Your task to perform on an android device: Open Google Chrome and click the shortcut for Amazon.com Image 0: 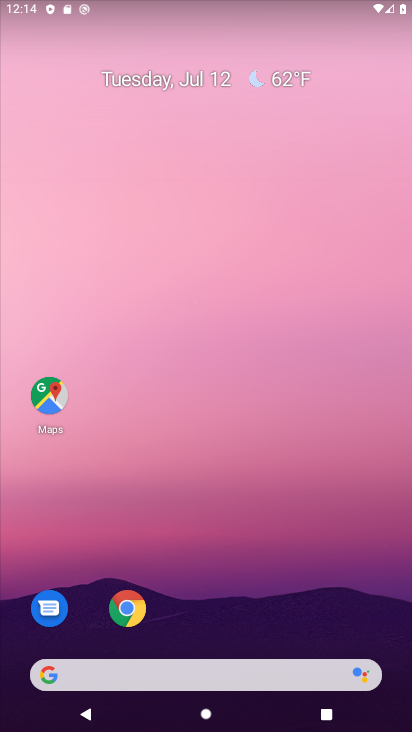
Step 0: drag from (225, 617) to (259, 208)
Your task to perform on an android device: Open Google Chrome and click the shortcut for Amazon.com Image 1: 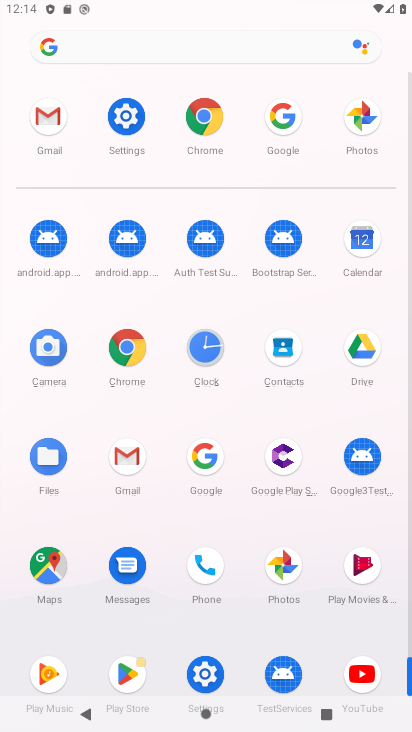
Step 1: click (220, 122)
Your task to perform on an android device: Open Google Chrome and click the shortcut for Amazon.com Image 2: 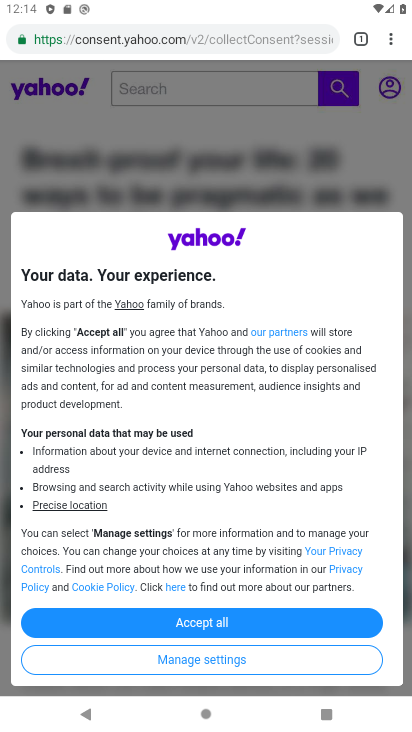
Step 2: click (253, 36)
Your task to perform on an android device: Open Google Chrome and click the shortcut for Amazon.com Image 3: 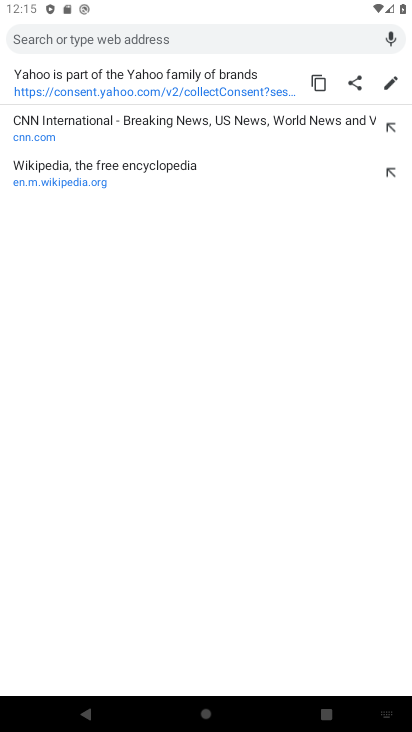
Step 3: type "Amazon.com"
Your task to perform on an android device: Open Google Chrome and click the shortcut for Amazon.com Image 4: 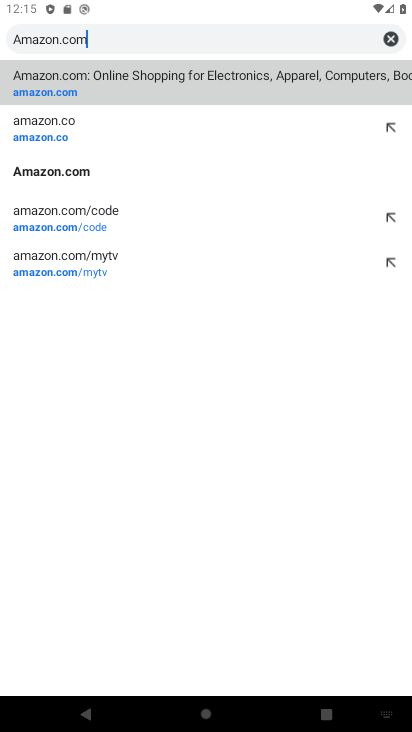
Step 4: press enter
Your task to perform on an android device: Open Google Chrome and click the shortcut for Amazon.com Image 5: 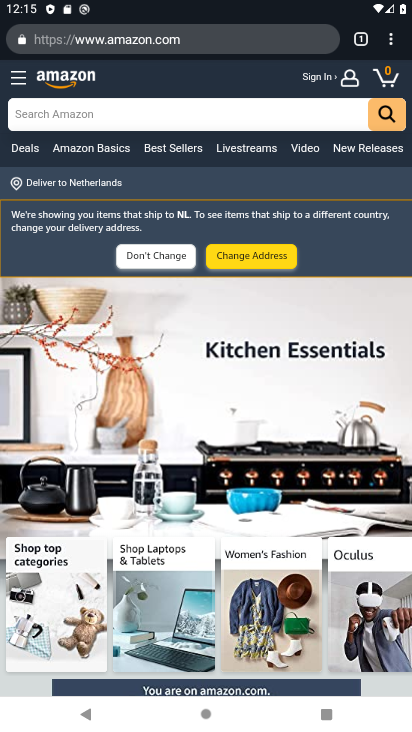
Step 5: drag from (390, 43) to (276, 412)
Your task to perform on an android device: Open Google Chrome and click the shortcut for Amazon.com Image 6: 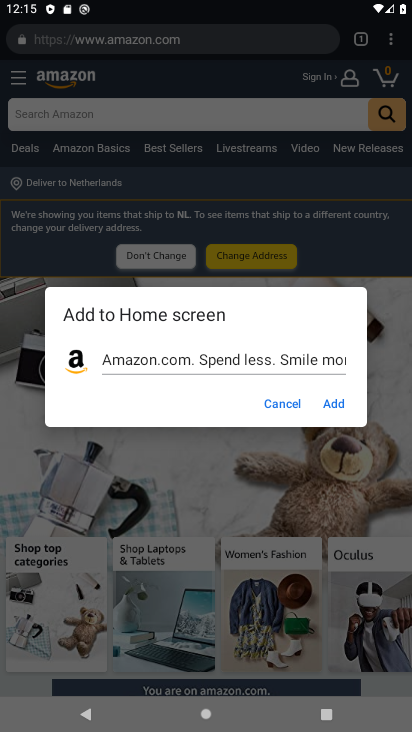
Step 6: click (331, 410)
Your task to perform on an android device: Open Google Chrome and click the shortcut for Amazon.com Image 7: 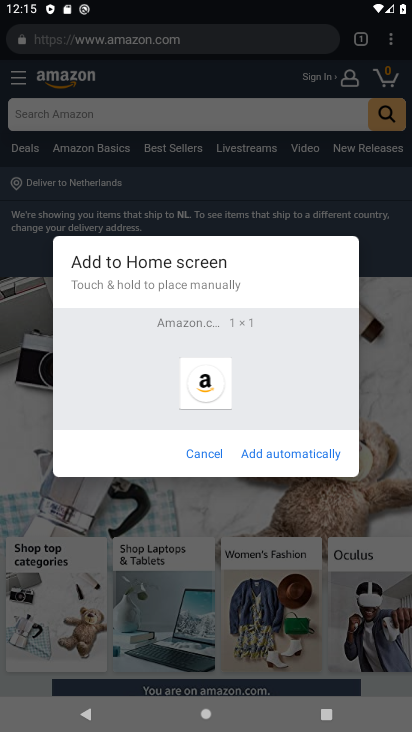
Step 7: click (285, 460)
Your task to perform on an android device: Open Google Chrome and click the shortcut for Amazon.com Image 8: 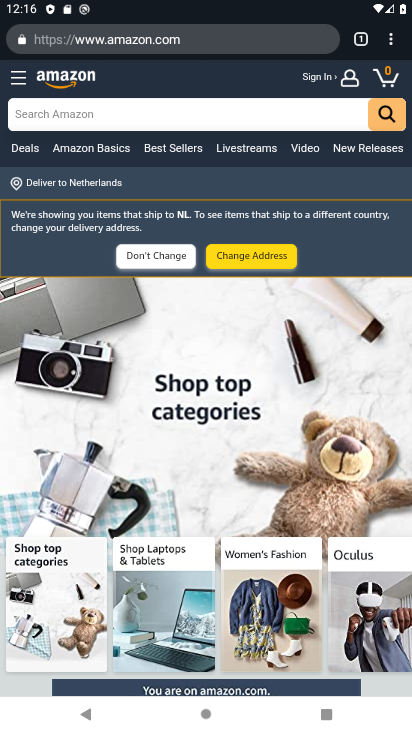
Step 8: task complete